Your task to perform on an android device: Open a new Chrome private window Image 0: 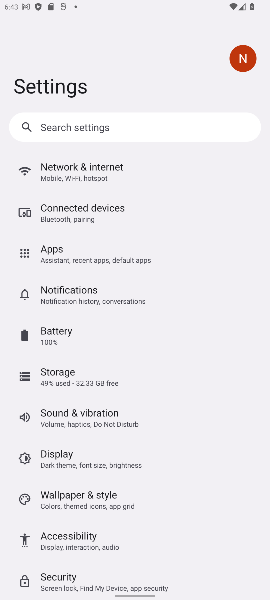
Step 0: press home button
Your task to perform on an android device: Open a new Chrome private window Image 1: 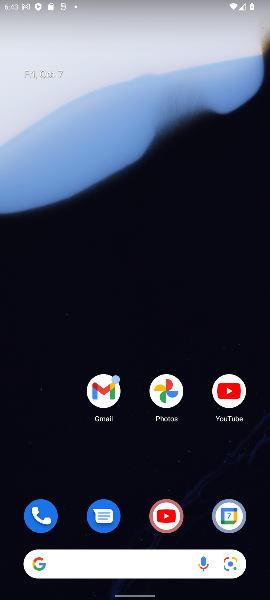
Step 1: drag from (137, 543) to (142, 109)
Your task to perform on an android device: Open a new Chrome private window Image 2: 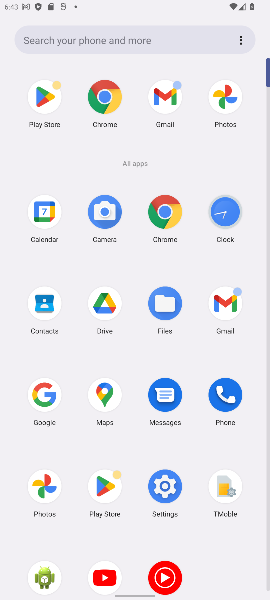
Step 2: click (122, 105)
Your task to perform on an android device: Open a new Chrome private window Image 3: 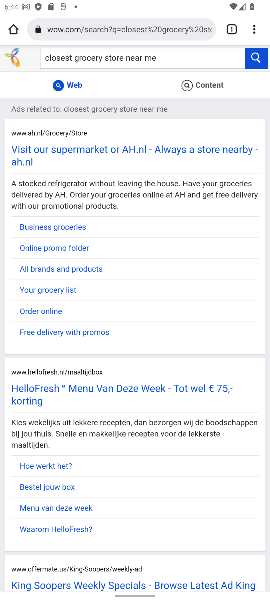
Step 3: click (163, 26)
Your task to perform on an android device: Open a new Chrome private window Image 4: 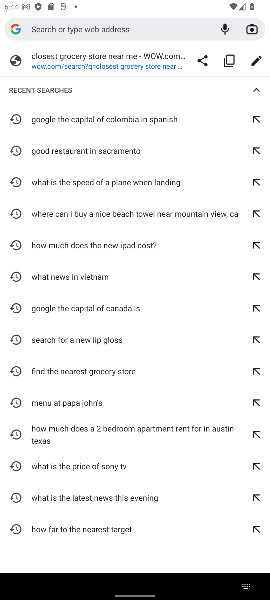
Step 4: press back button
Your task to perform on an android device: Open a new Chrome private window Image 5: 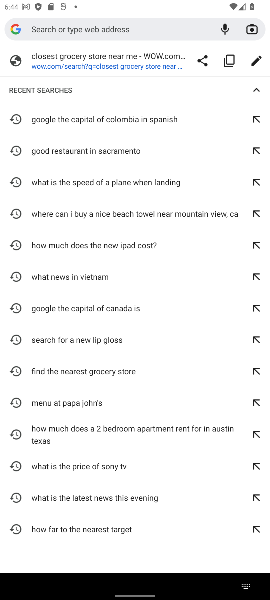
Step 5: type "chrome "
Your task to perform on an android device: Open a new Chrome private window Image 6: 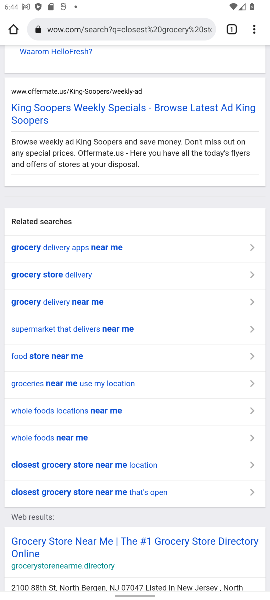
Step 6: click (256, 32)
Your task to perform on an android device: Open a new Chrome private window Image 7: 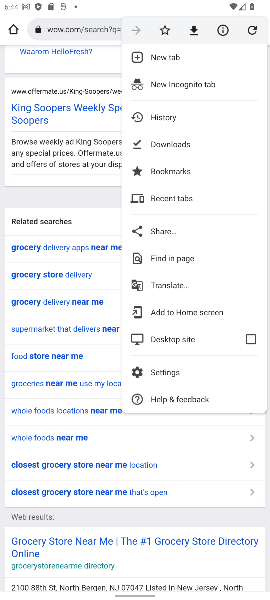
Step 7: click (165, 85)
Your task to perform on an android device: Open a new Chrome private window Image 8: 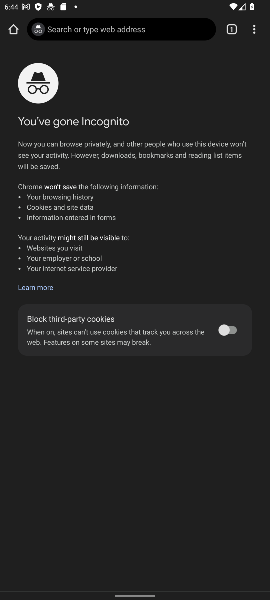
Step 8: task complete